Your task to perform on an android device: Toggle the flashlight Image 0: 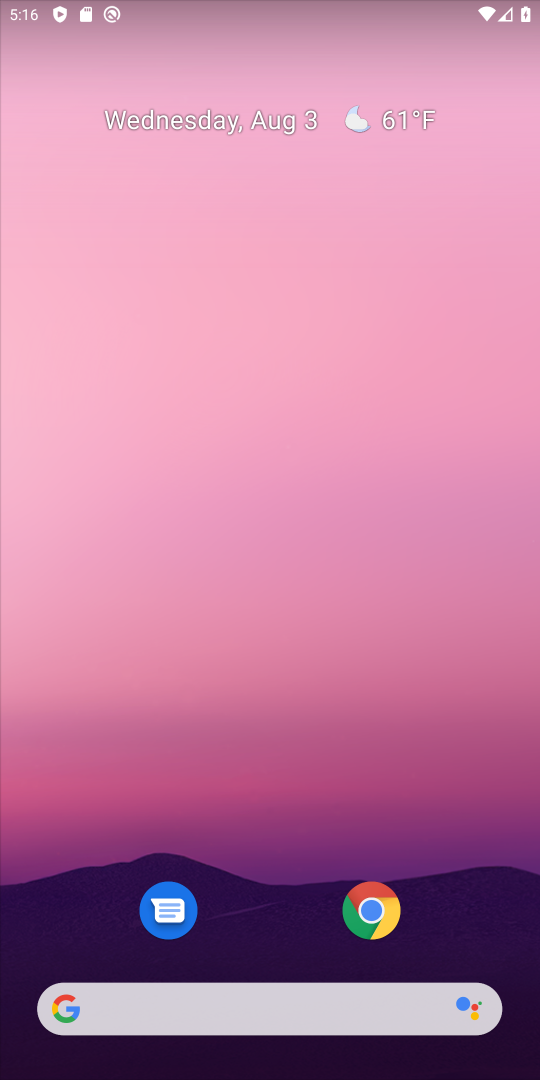
Step 0: drag from (161, 1) to (88, 532)
Your task to perform on an android device: Toggle the flashlight Image 1: 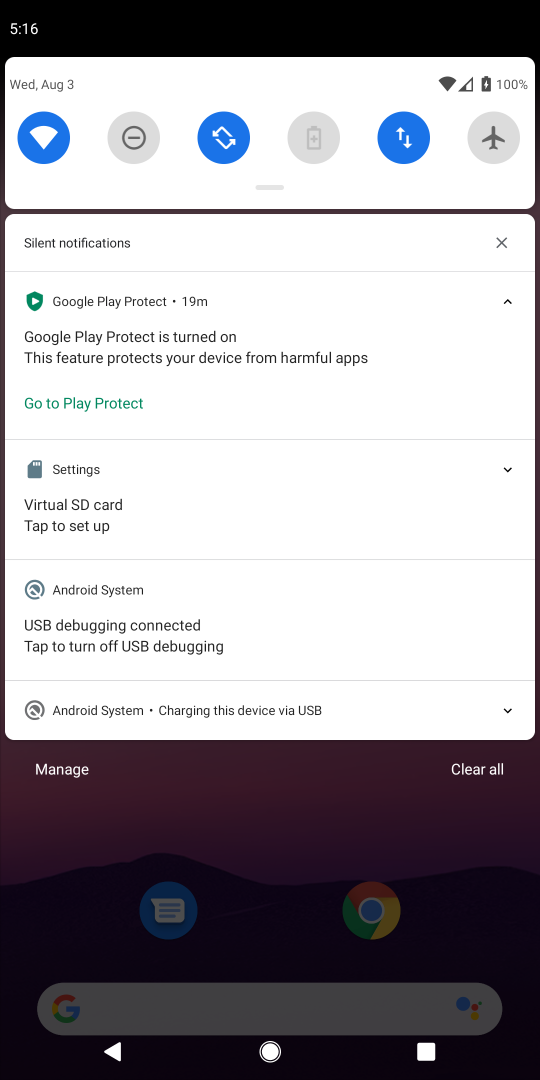
Step 1: drag from (183, 115) to (70, 622)
Your task to perform on an android device: Toggle the flashlight Image 2: 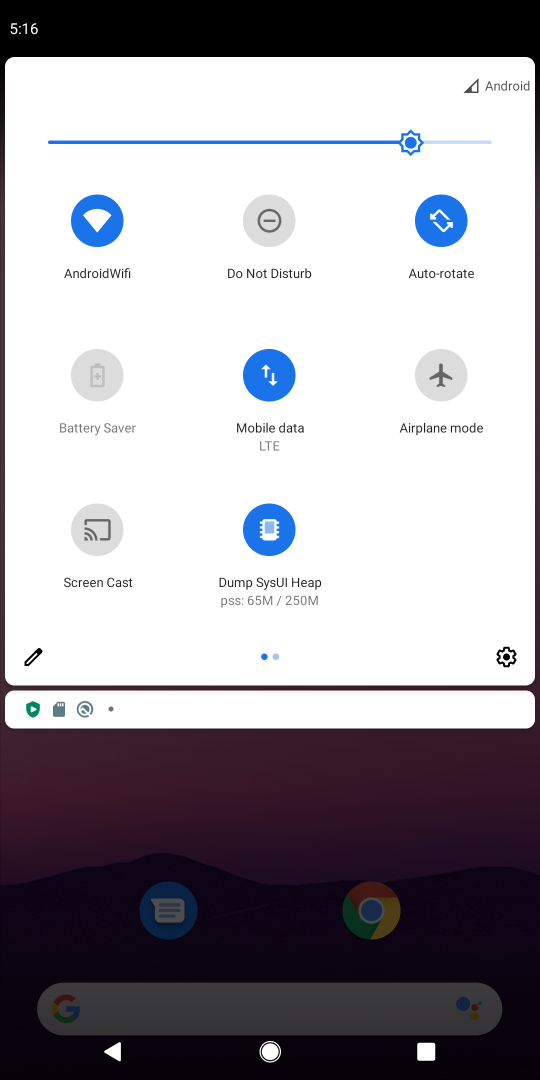
Step 2: click (405, 759)
Your task to perform on an android device: Toggle the flashlight Image 3: 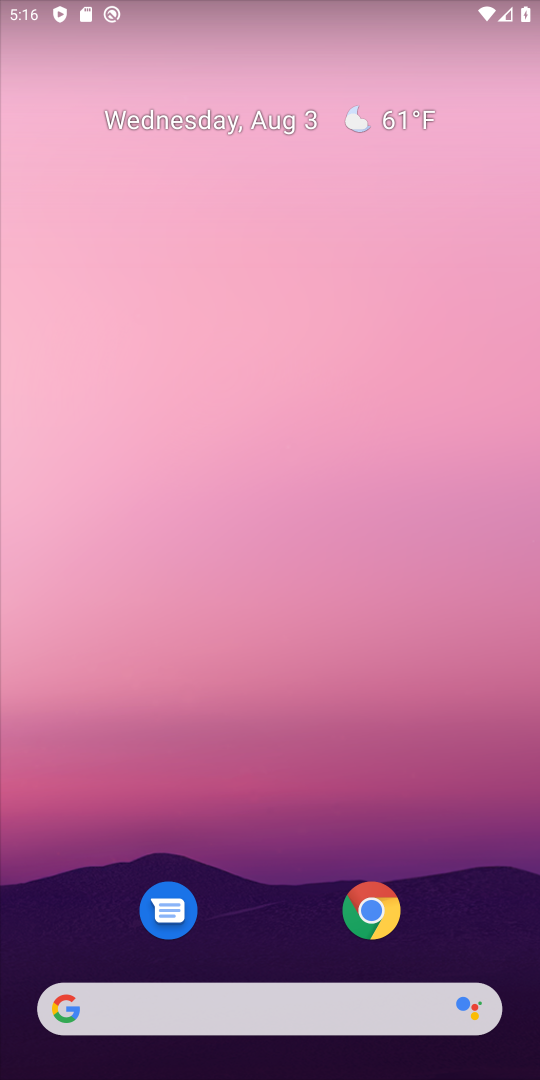
Step 3: task complete